Your task to perform on an android device: turn off picture-in-picture Image 0: 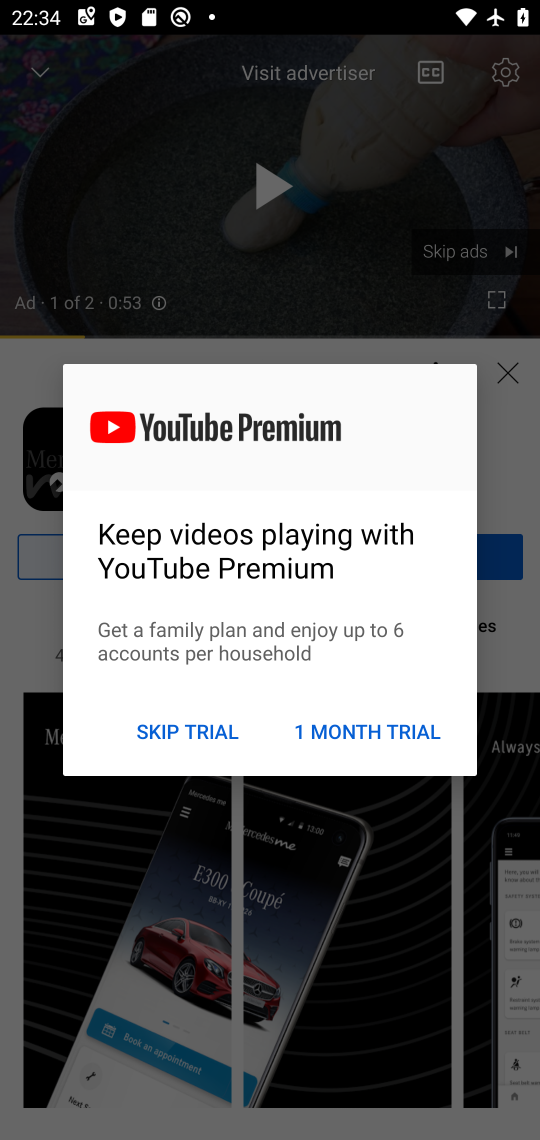
Step 0: press home button
Your task to perform on an android device: turn off picture-in-picture Image 1: 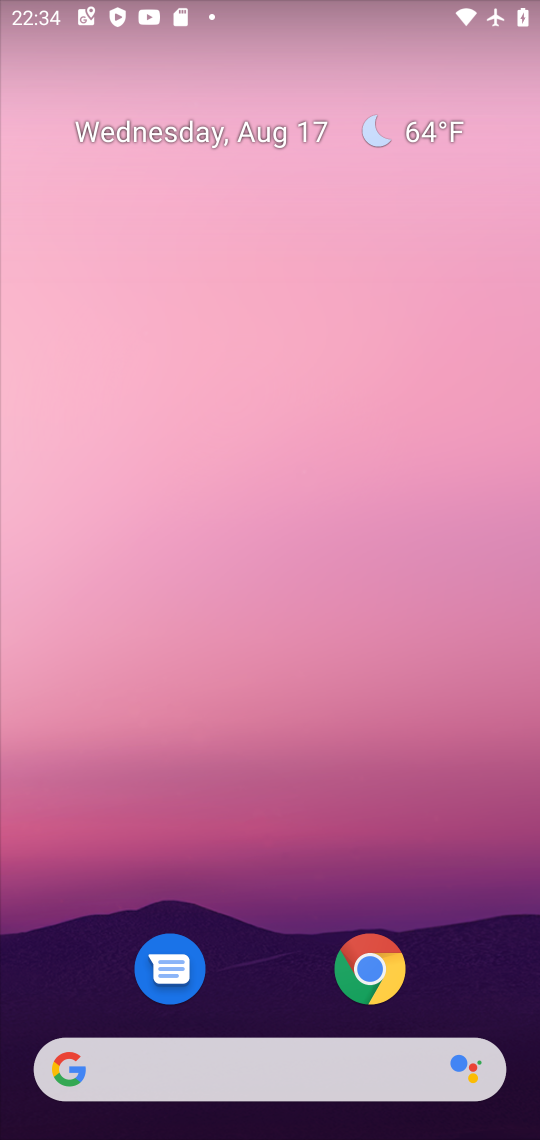
Step 1: drag from (273, 977) to (301, 131)
Your task to perform on an android device: turn off picture-in-picture Image 2: 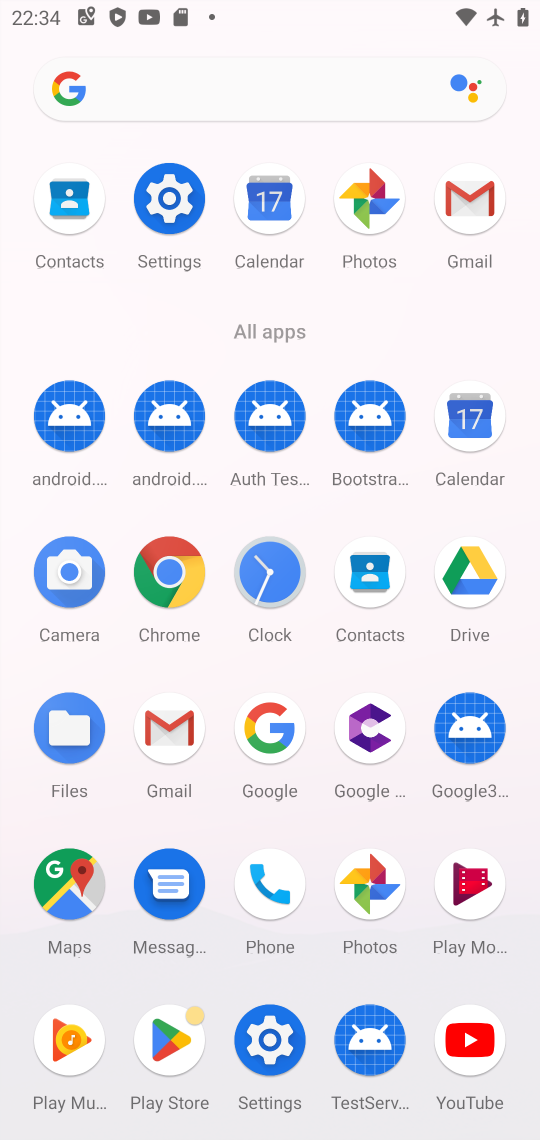
Step 2: click (172, 196)
Your task to perform on an android device: turn off picture-in-picture Image 3: 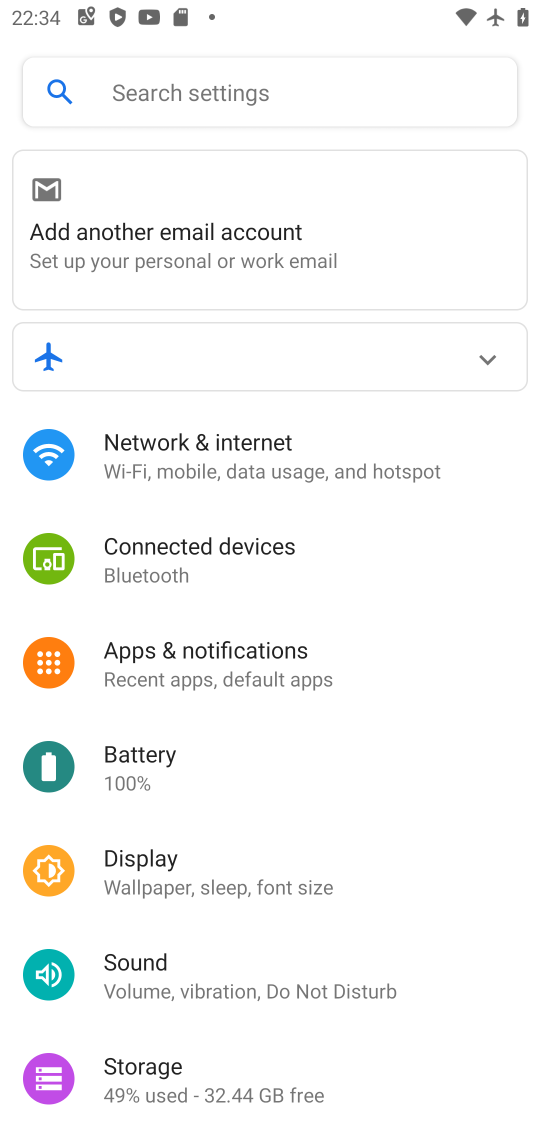
Step 3: click (237, 653)
Your task to perform on an android device: turn off picture-in-picture Image 4: 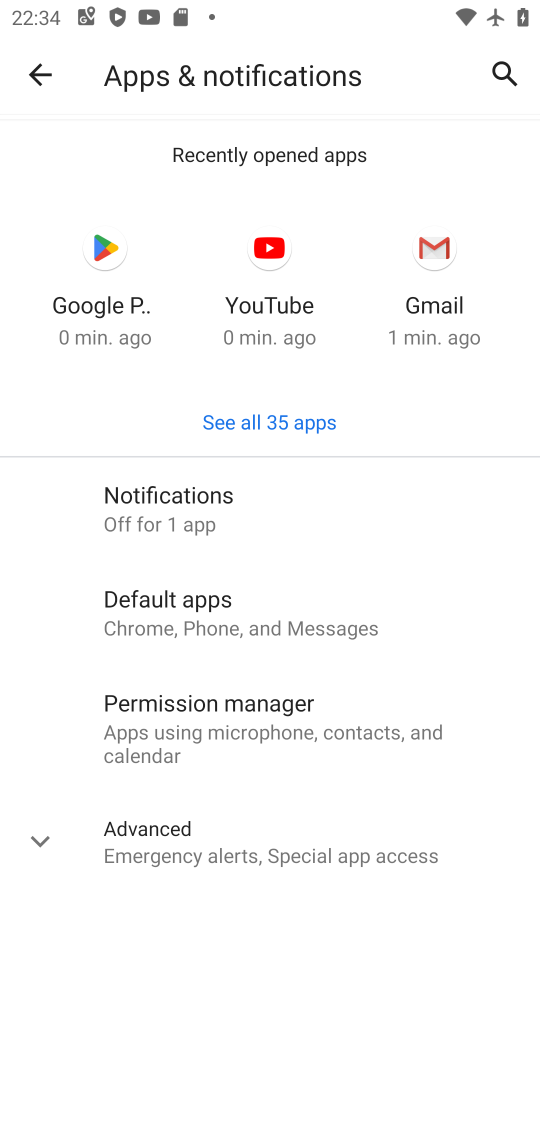
Step 4: click (45, 835)
Your task to perform on an android device: turn off picture-in-picture Image 5: 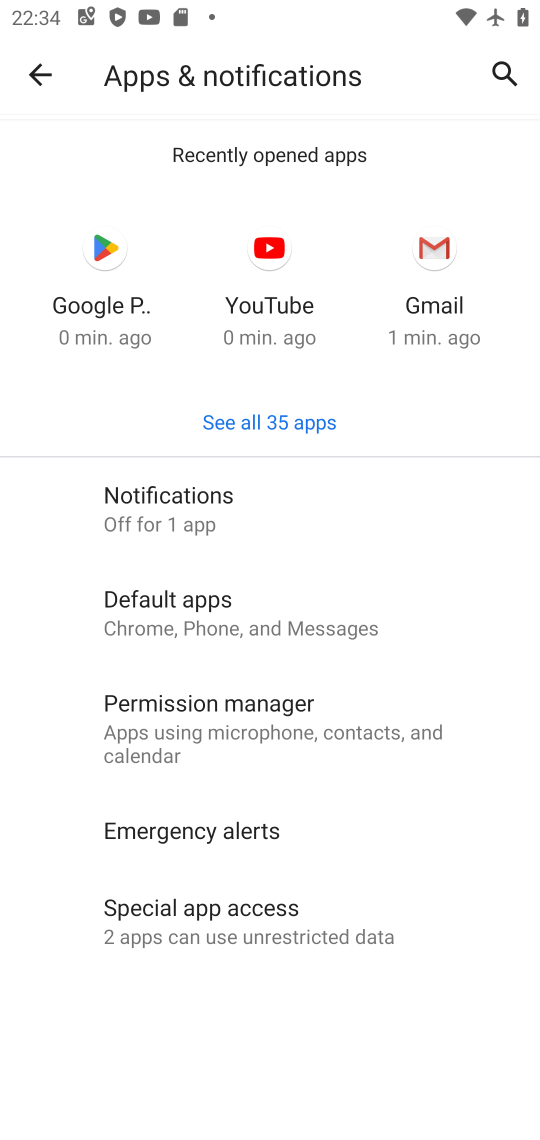
Step 5: click (214, 918)
Your task to perform on an android device: turn off picture-in-picture Image 6: 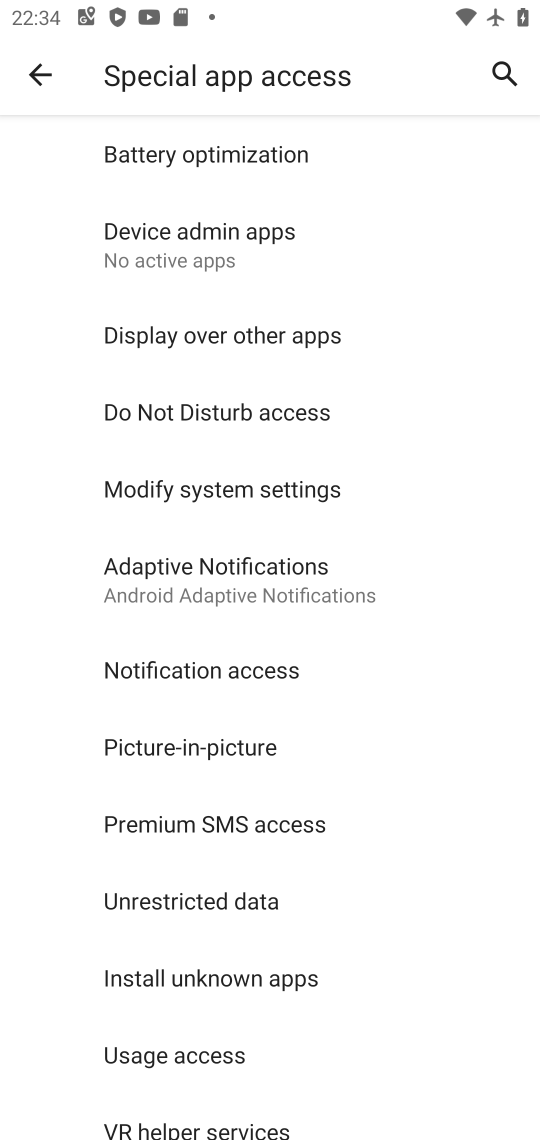
Step 6: click (210, 747)
Your task to perform on an android device: turn off picture-in-picture Image 7: 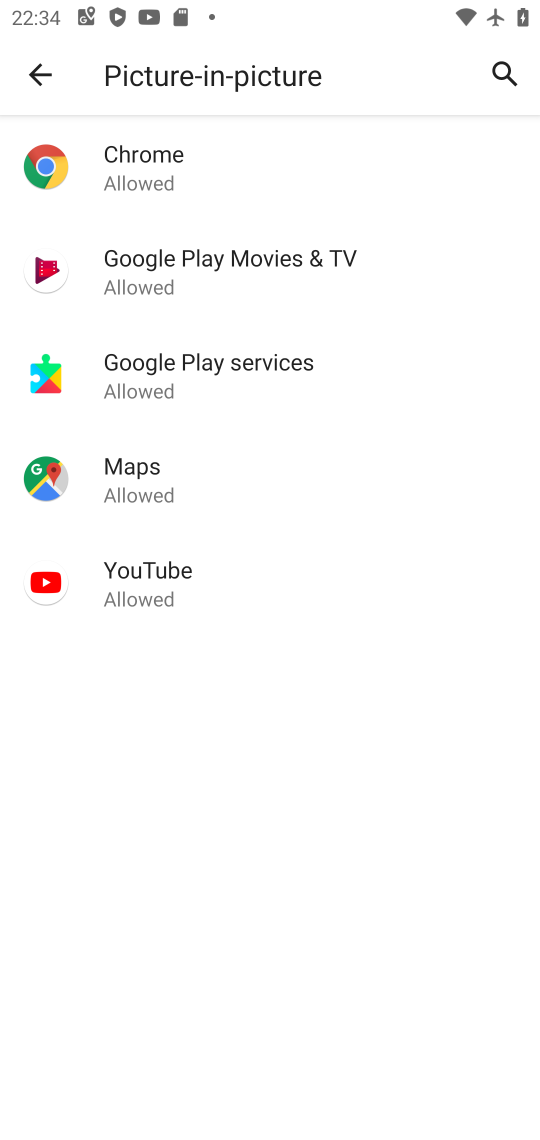
Step 7: click (143, 173)
Your task to perform on an android device: turn off picture-in-picture Image 8: 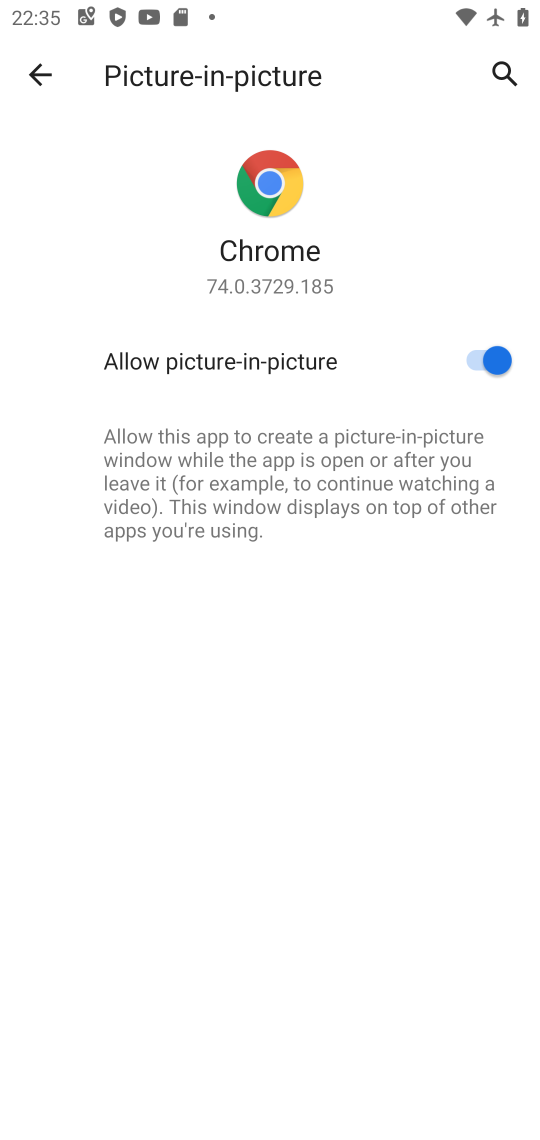
Step 8: click (489, 350)
Your task to perform on an android device: turn off picture-in-picture Image 9: 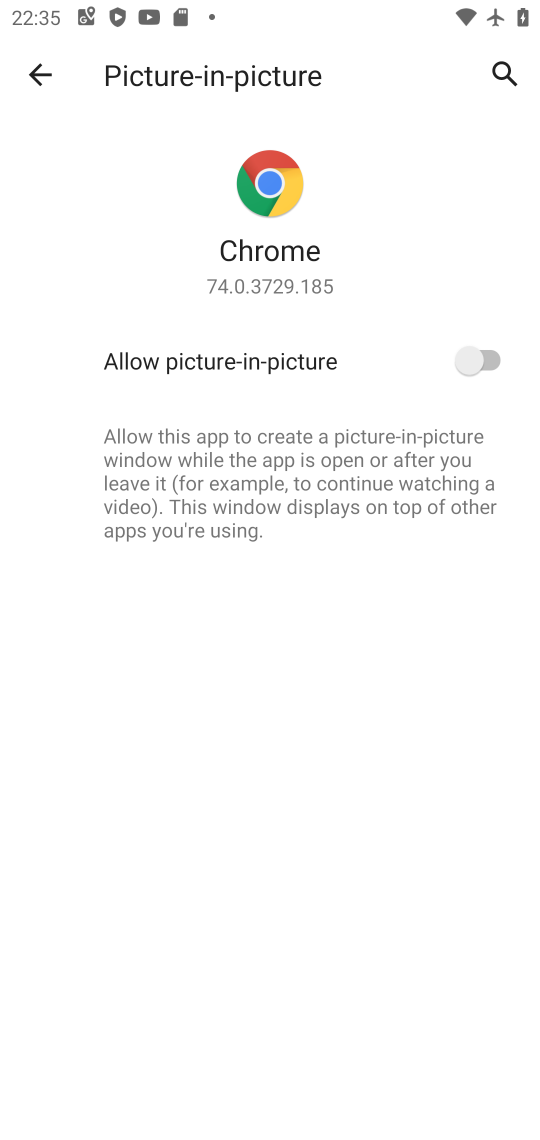
Step 9: click (35, 65)
Your task to perform on an android device: turn off picture-in-picture Image 10: 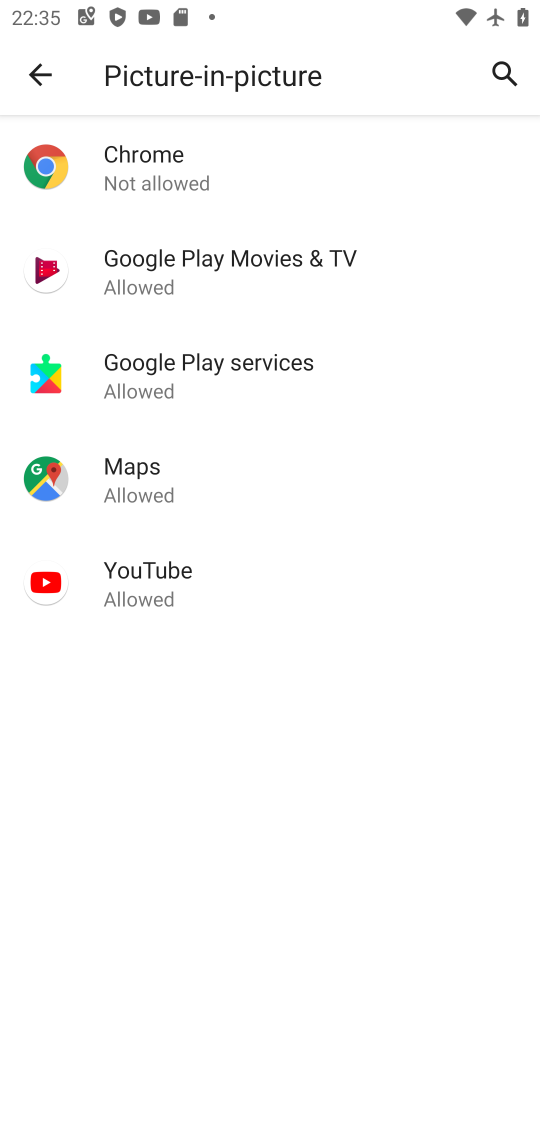
Step 10: click (175, 276)
Your task to perform on an android device: turn off picture-in-picture Image 11: 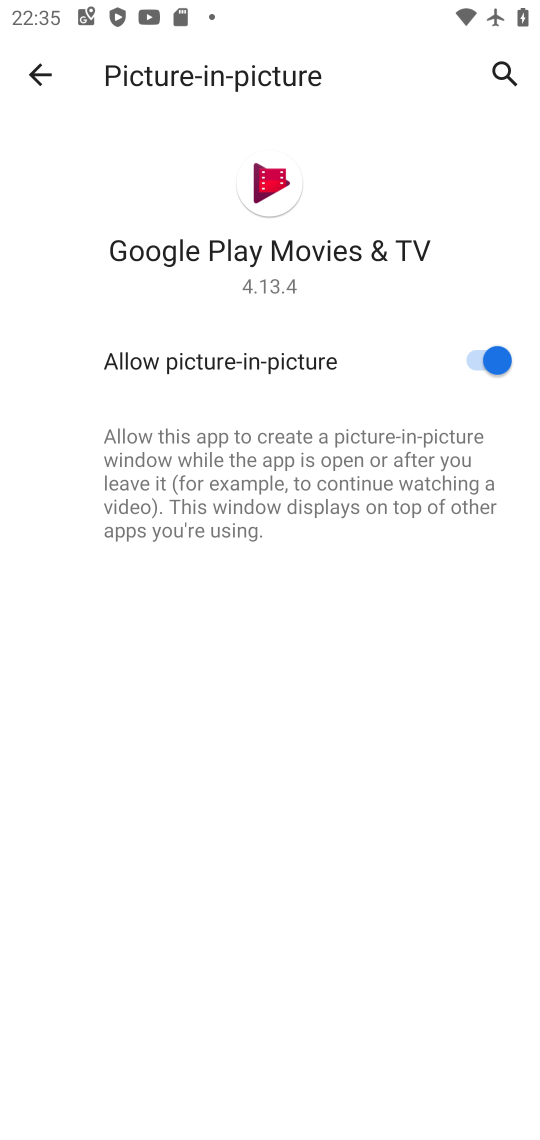
Step 11: click (495, 354)
Your task to perform on an android device: turn off picture-in-picture Image 12: 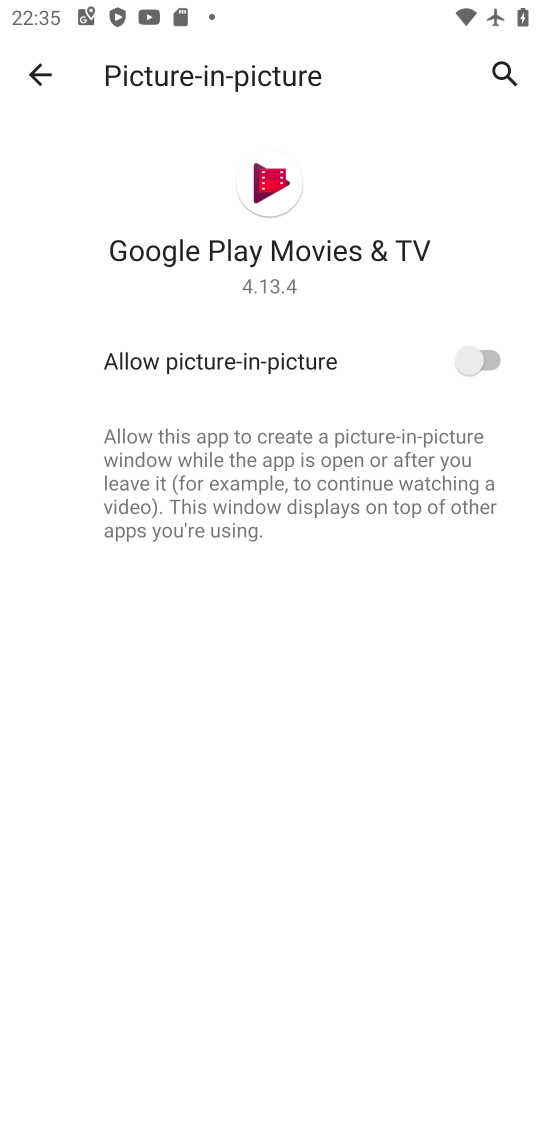
Step 12: click (39, 79)
Your task to perform on an android device: turn off picture-in-picture Image 13: 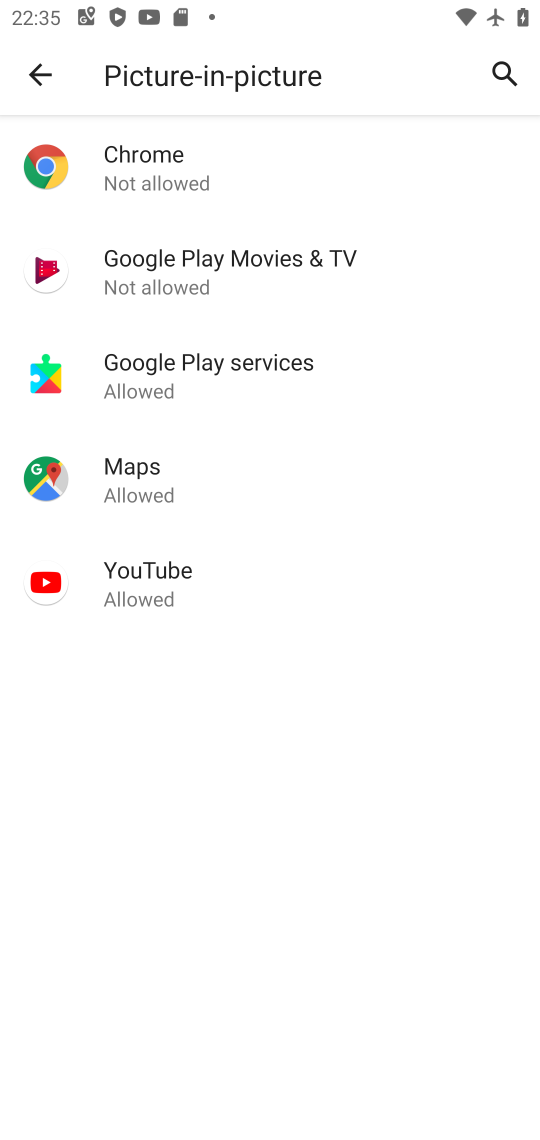
Step 13: click (146, 390)
Your task to perform on an android device: turn off picture-in-picture Image 14: 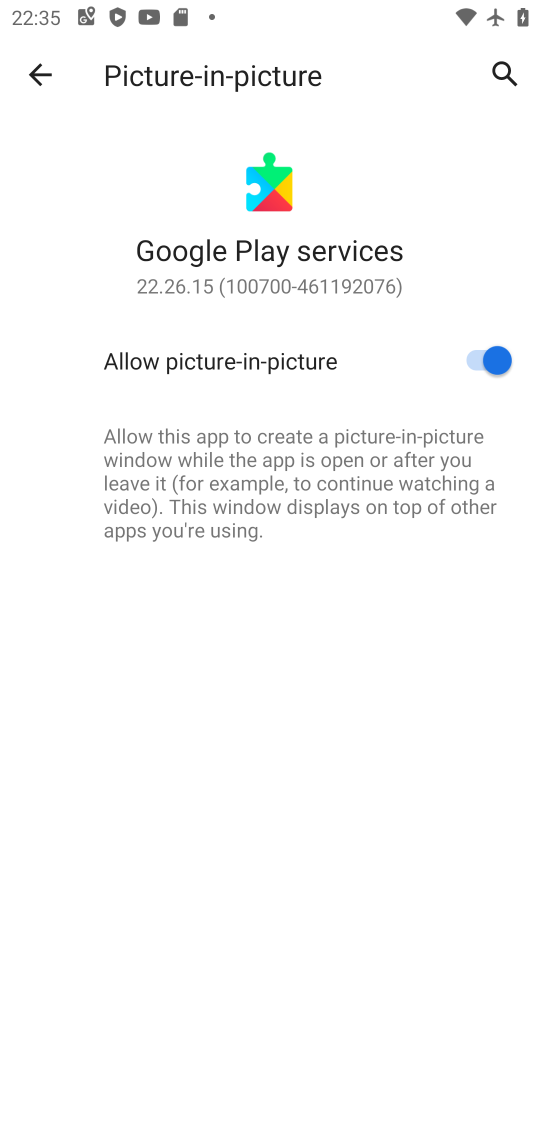
Step 14: click (482, 357)
Your task to perform on an android device: turn off picture-in-picture Image 15: 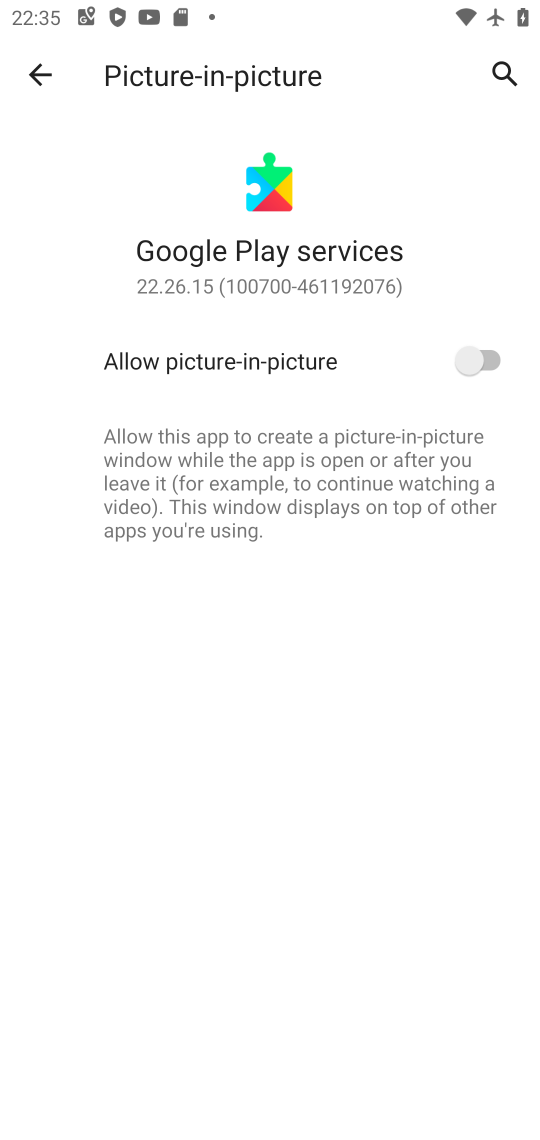
Step 15: click (43, 78)
Your task to perform on an android device: turn off picture-in-picture Image 16: 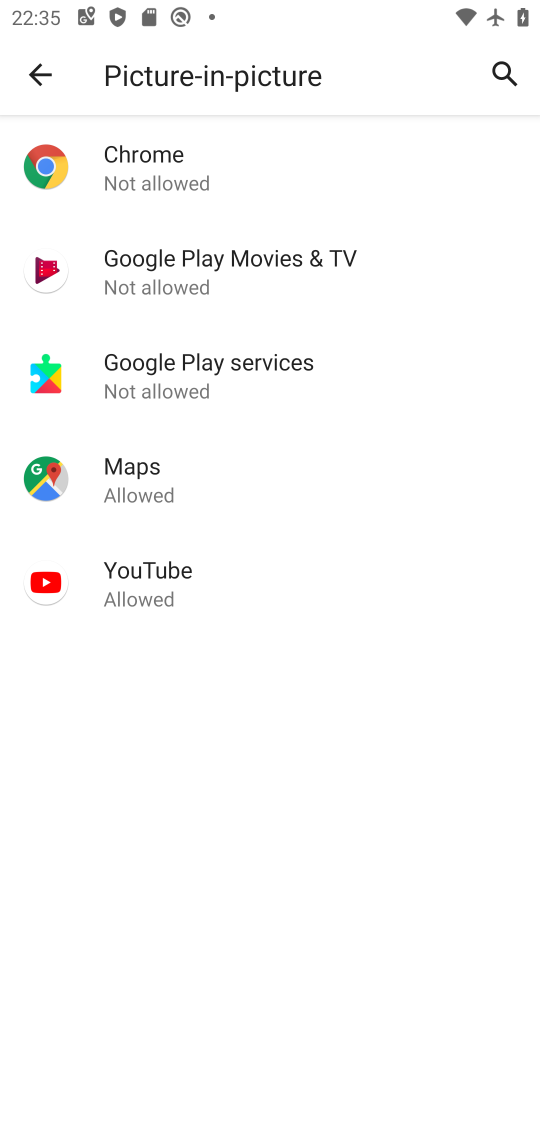
Step 16: click (135, 487)
Your task to perform on an android device: turn off picture-in-picture Image 17: 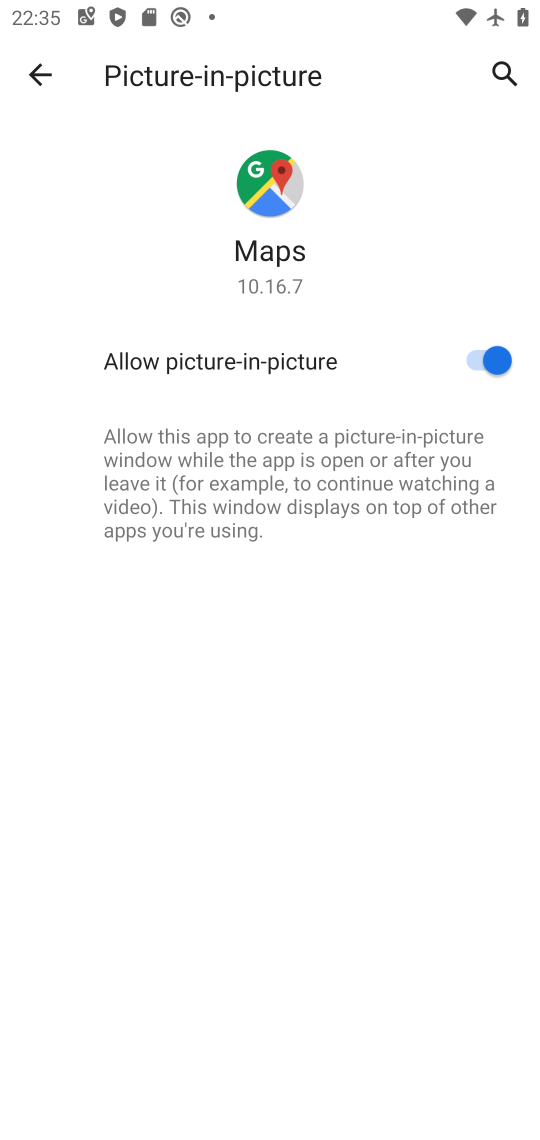
Step 17: click (506, 363)
Your task to perform on an android device: turn off picture-in-picture Image 18: 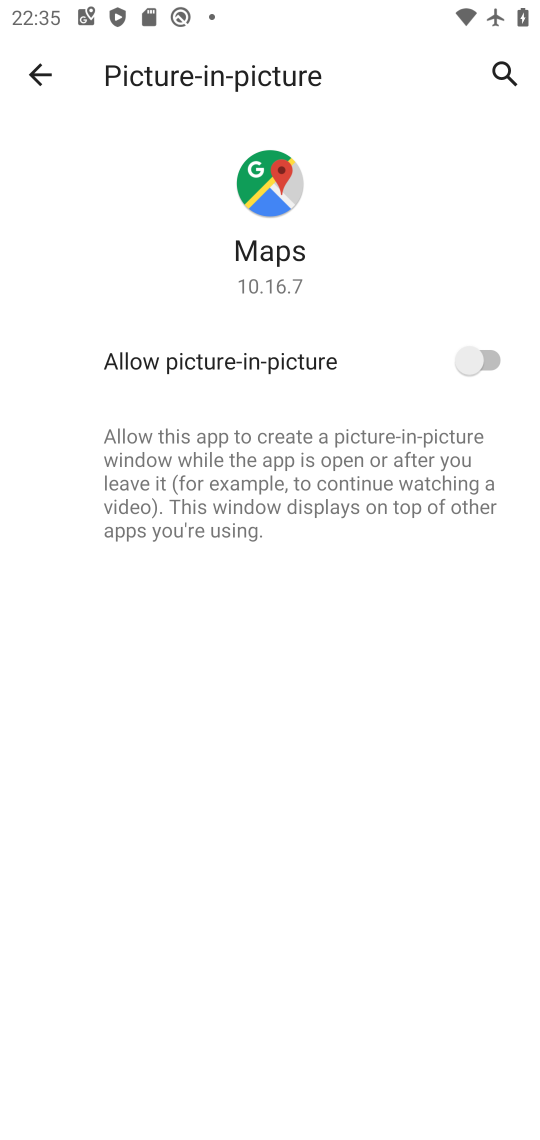
Step 18: click (47, 69)
Your task to perform on an android device: turn off picture-in-picture Image 19: 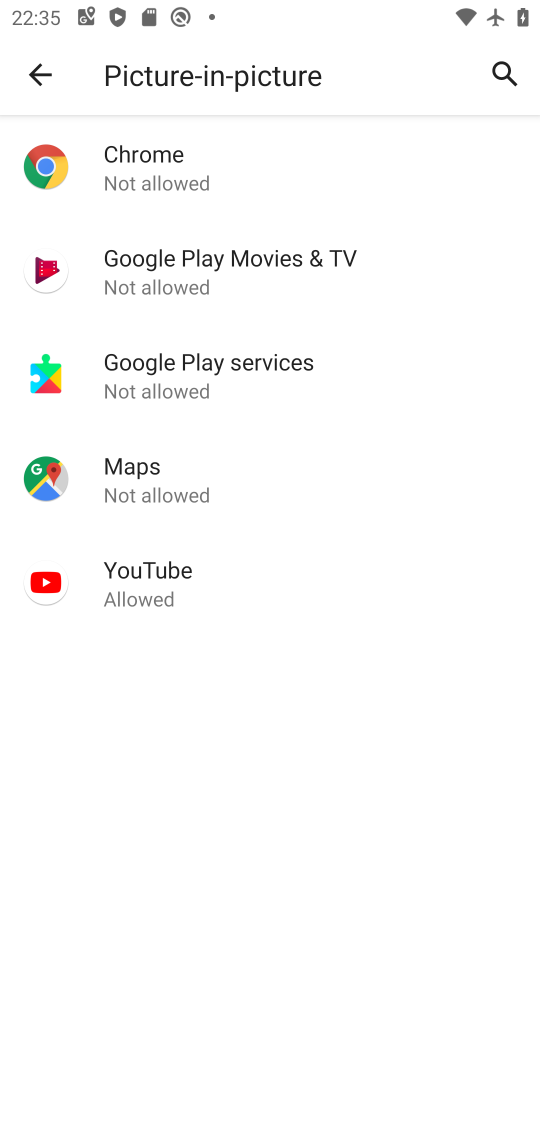
Step 19: click (173, 583)
Your task to perform on an android device: turn off picture-in-picture Image 20: 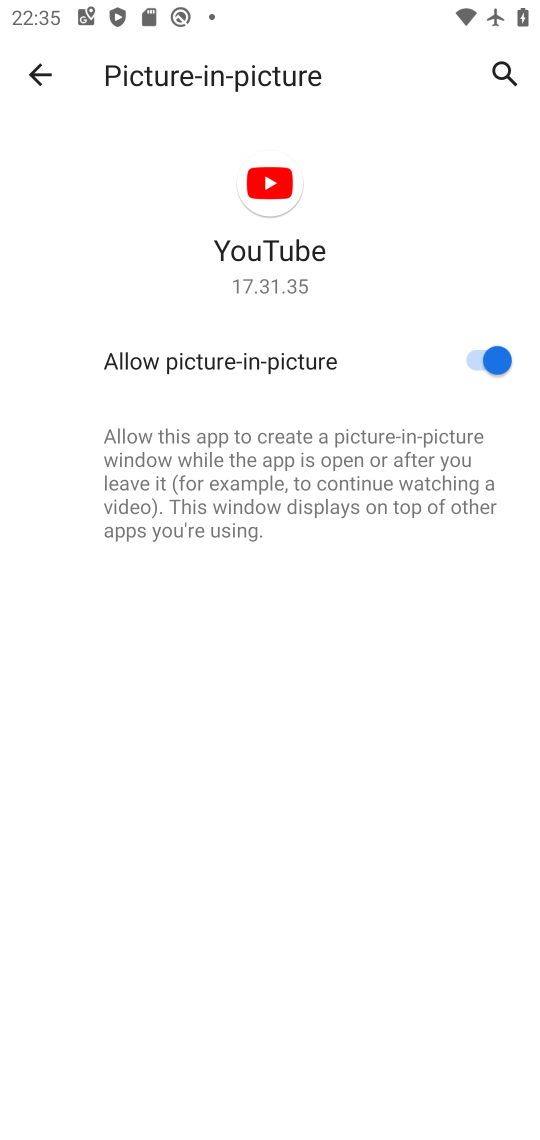
Step 20: click (499, 350)
Your task to perform on an android device: turn off picture-in-picture Image 21: 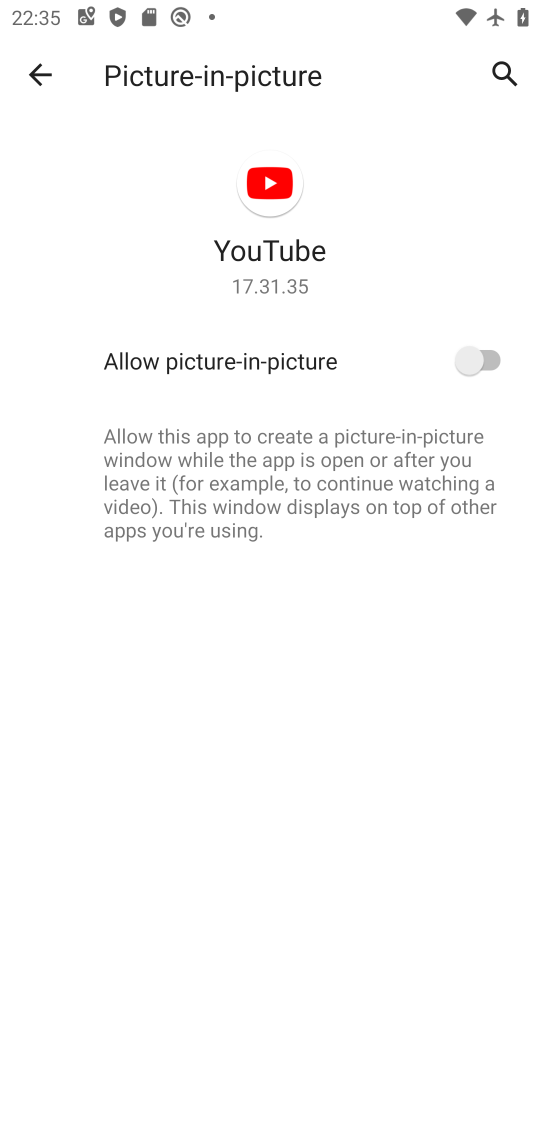
Step 21: click (39, 70)
Your task to perform on an android device: turn off picture-in-picture Image 22: 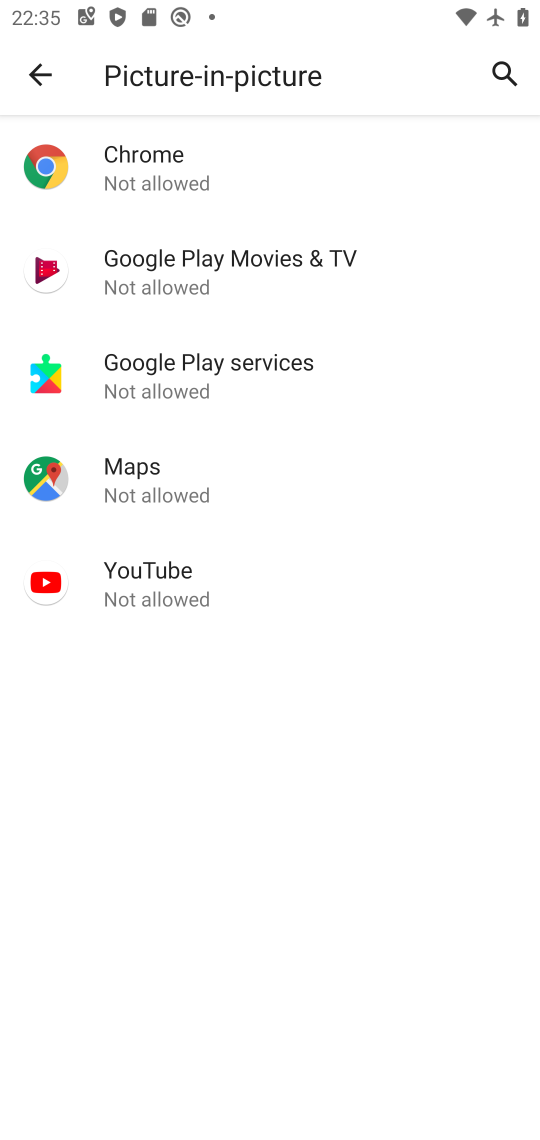
Step 22: task complete